Your task to perform on an android device: turn on improve location accuracy Image 0: 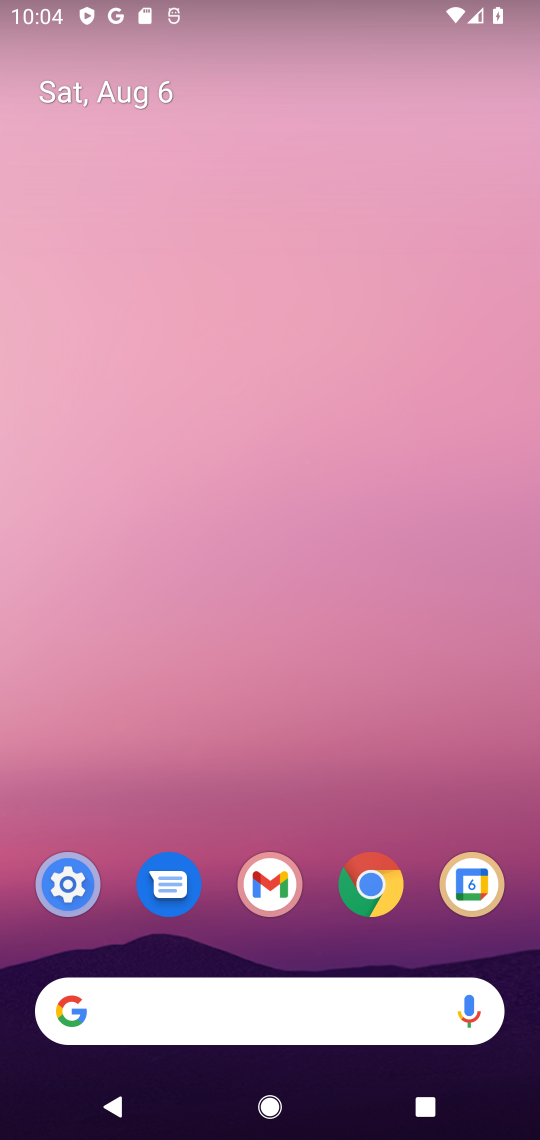
Step 0: click (68, 883)
Your task to perform on an android device: turn on improve location accuracy Image 1: 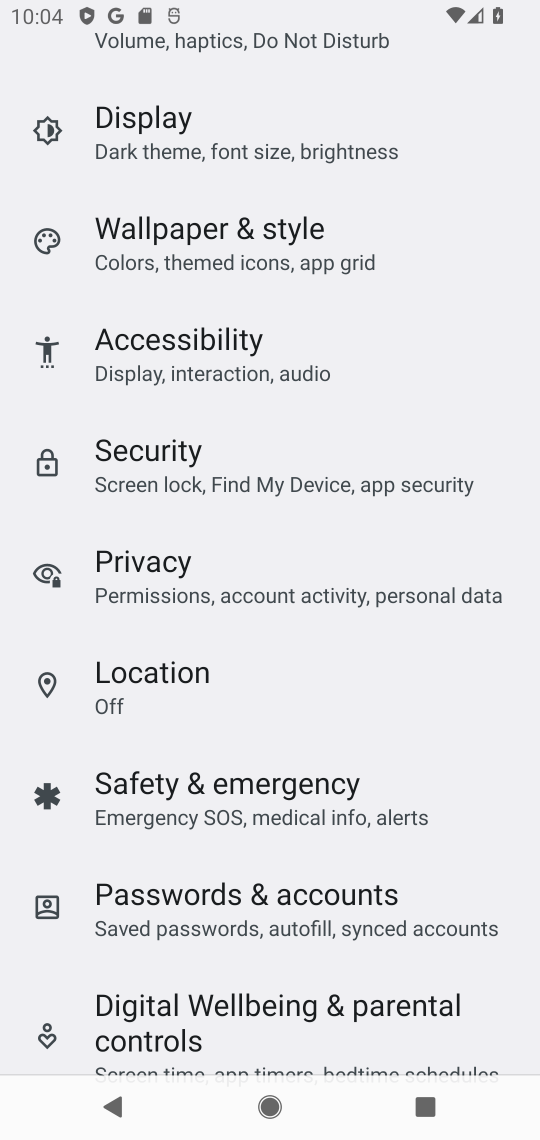
Step 1: click (457, 293)
Your task to perform on an android device: turn on improve location accuracy Image 2: 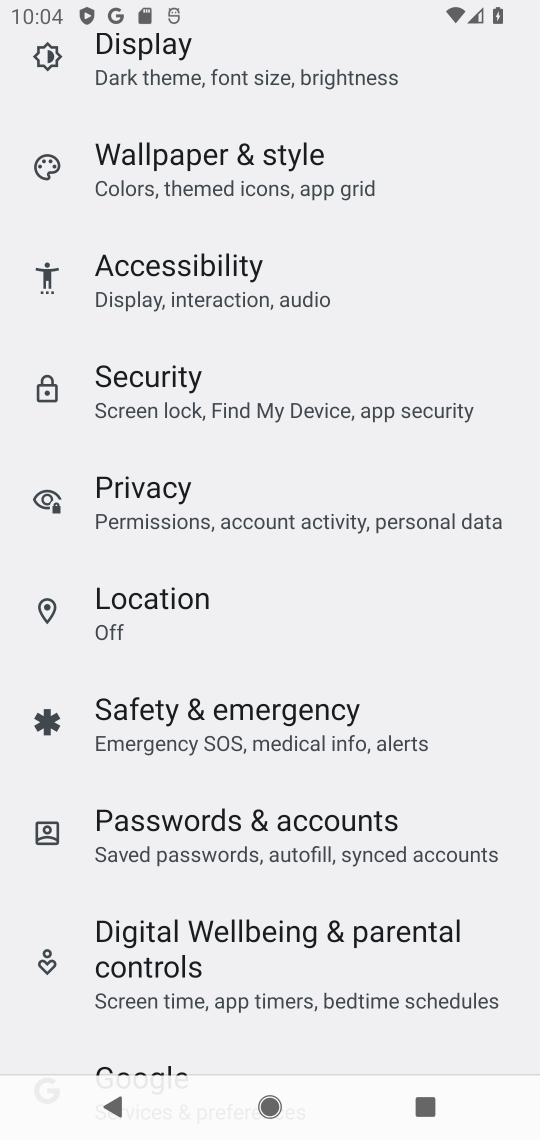
Step 2: click (145, 620)
Your task to perform on an android device: turn on improve location accuracy Image 3: 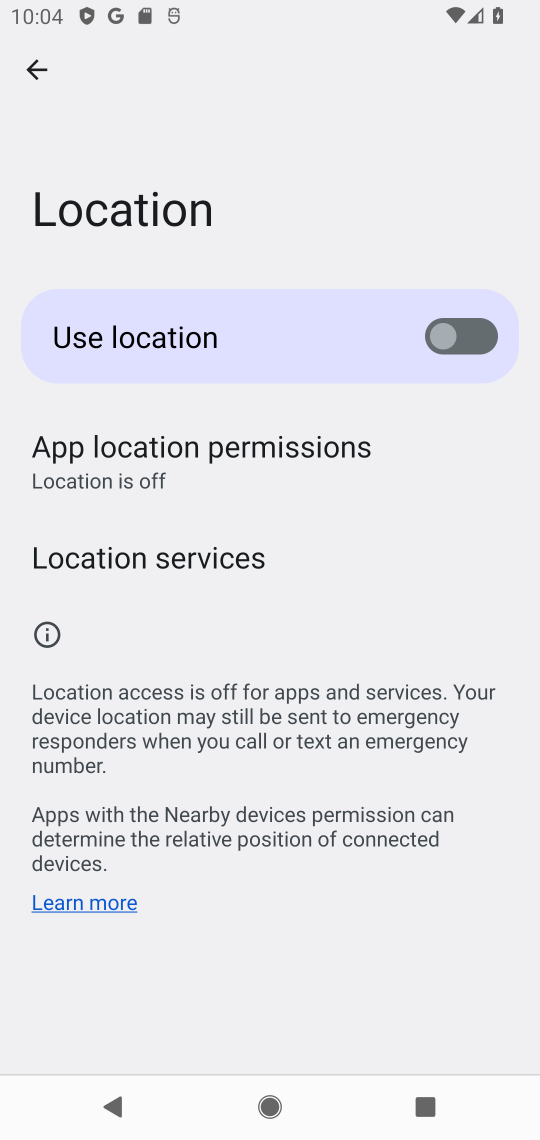
Step 3: click (141, 566)
Your task to perform on an android device: turn on improve location accuracy Image 4: 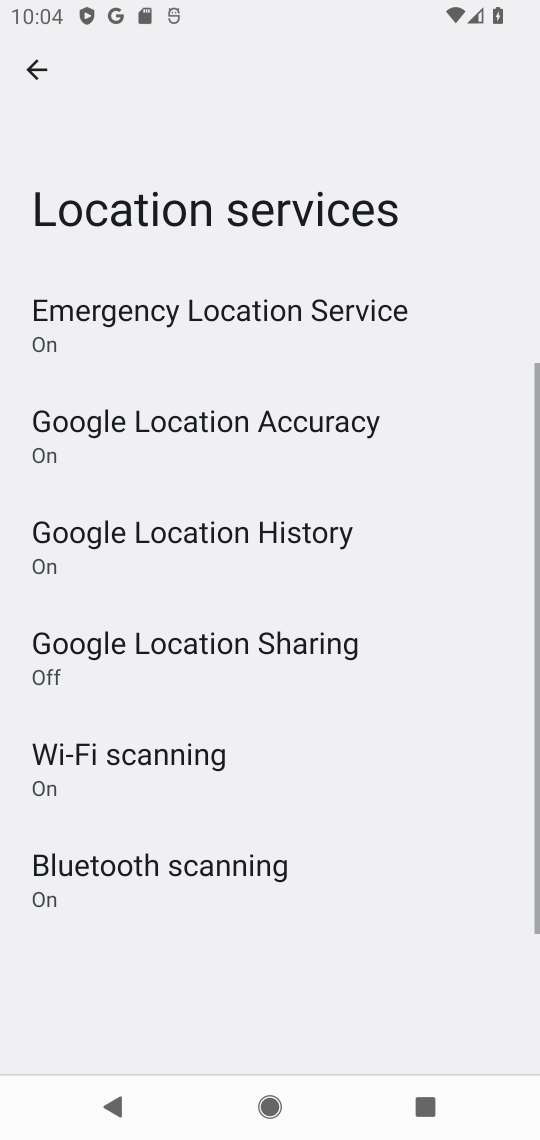
Step 4: click (205, 435)
Your task to perform on an android device: turn on improve location accuracy Image 5: 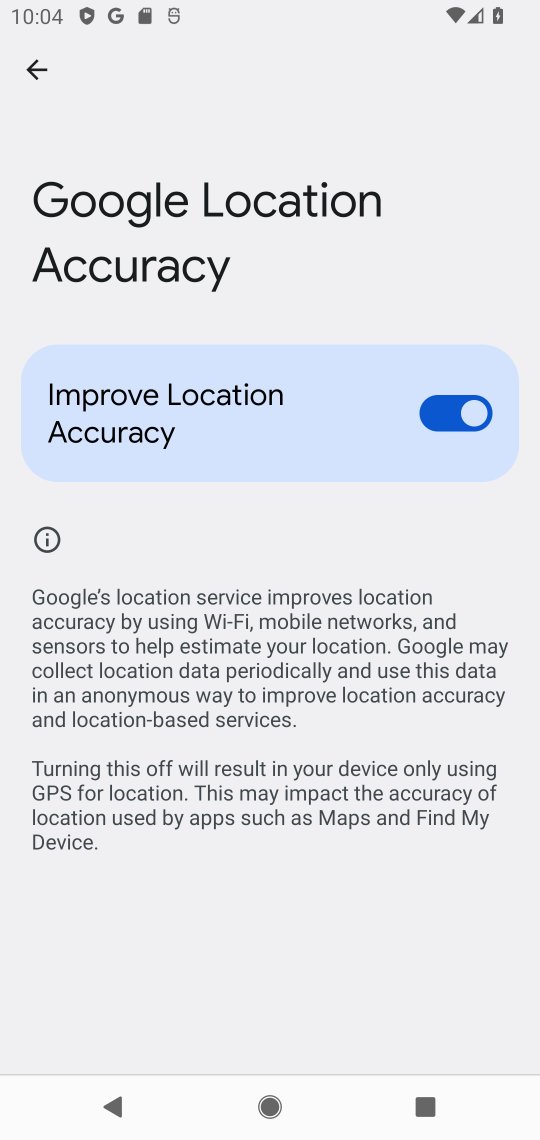
Step 5: task complete